Your task to perform on an android device: Open network settings Image 0: 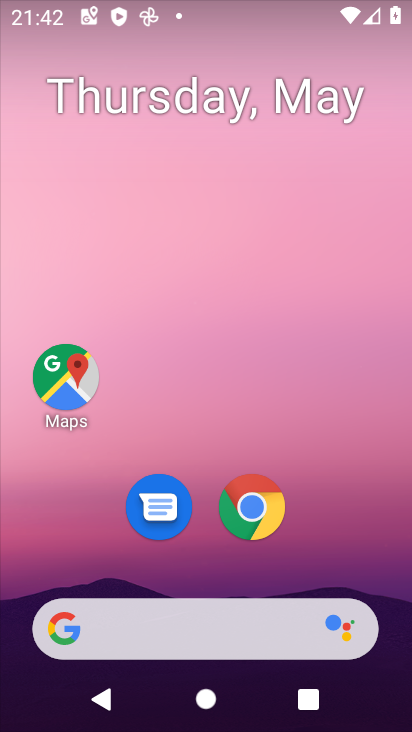
Step 0: drag from (232, 656) to (171, 300)
Your task to perform on an android device: Open network settings Image 1: 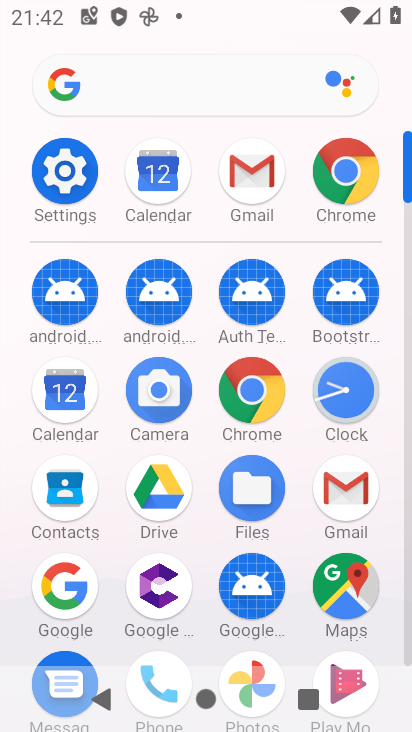
Step 1: click (58, 198)
Your task to perform on an android device: Open network settings Image 2: 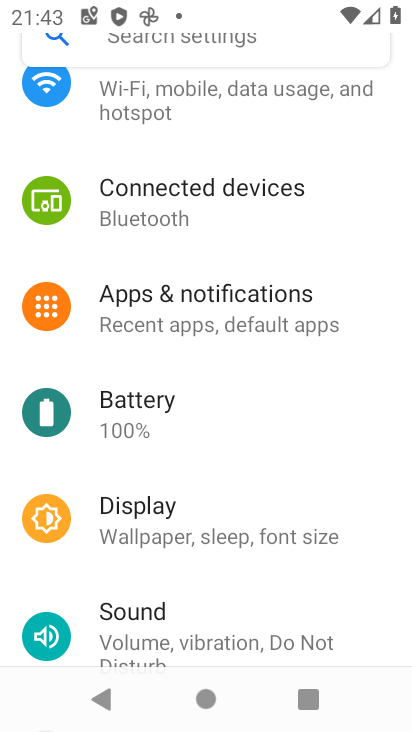
Step 2: click (256, 103)
Your task to perform on an android device: Open network settings Image 3: 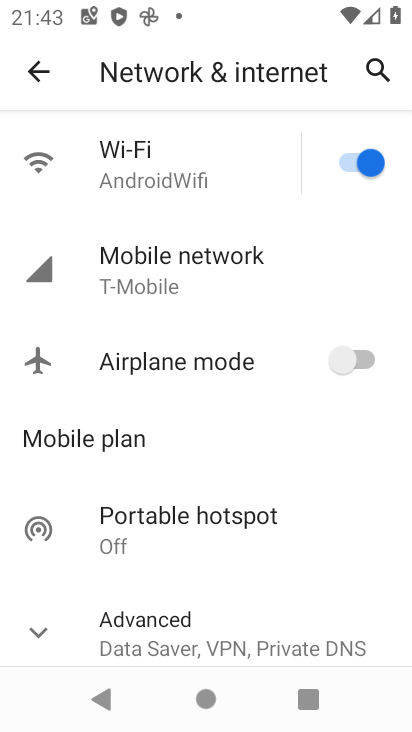
Step 3: click (171, 173)
Your task to perform on an android device: Open network settings Image 4: 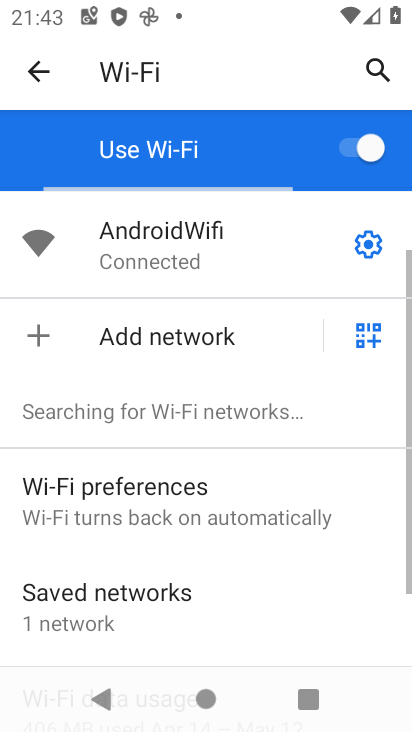
Step 4: click (35, 80)
Your task to perform on an android device: Open network settings Image 5: 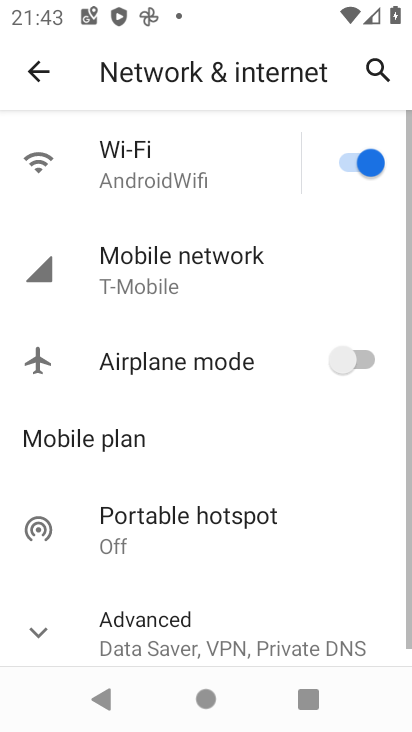
Step 5: task complete